Your task to perform on an android device: Open Chrome and go to settings Image 0: 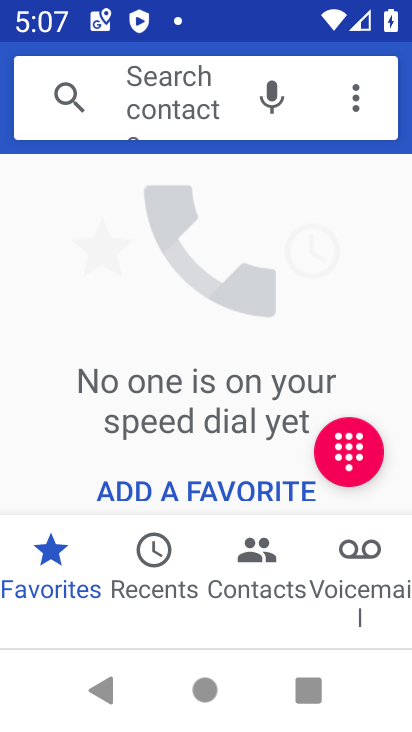
Step 0: press home button
Your task to perform on an android device: Open Chrome and go to settings Image 1: 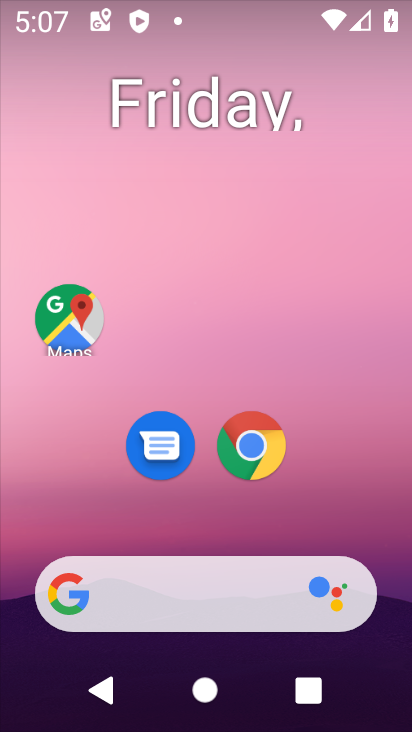
Step 1: click (255, 451)
Your task to perform on an android device: Open Chrome and go to settings Image 2: 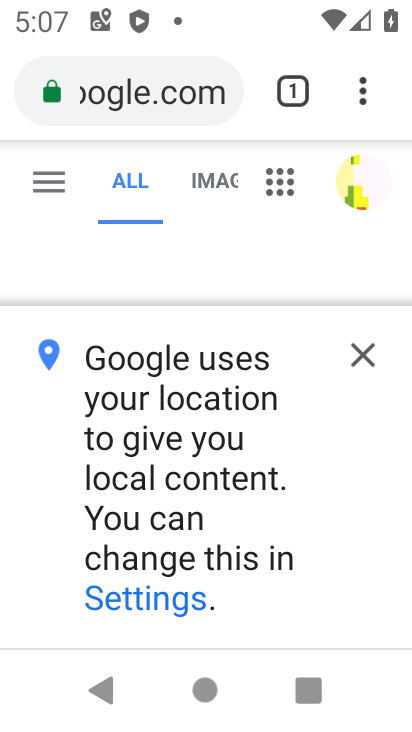
Step 2: click (378, 99)
Your task to perform on an android device: Open Chrome and go to settings Image 3: 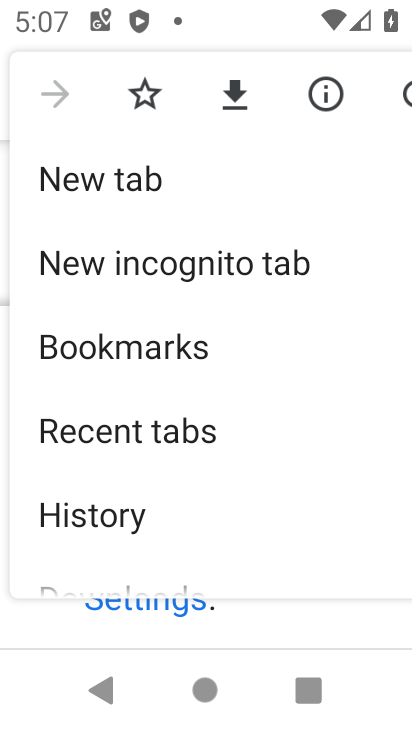
Step 3: drag from (258, 574) to (223, 374)
Your task to perform on an android device: Open Chrome and go to settings Image 4: 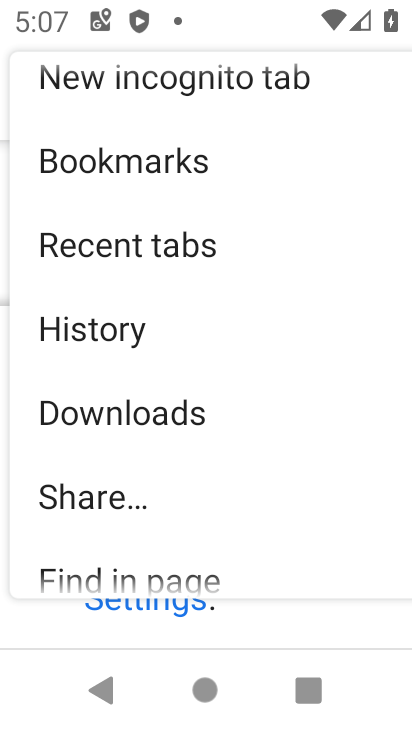
Step 4: drag from (220, 545) to (174, 315)
Your task to perform on an android device: Open Chrome and go to settings Image 5: 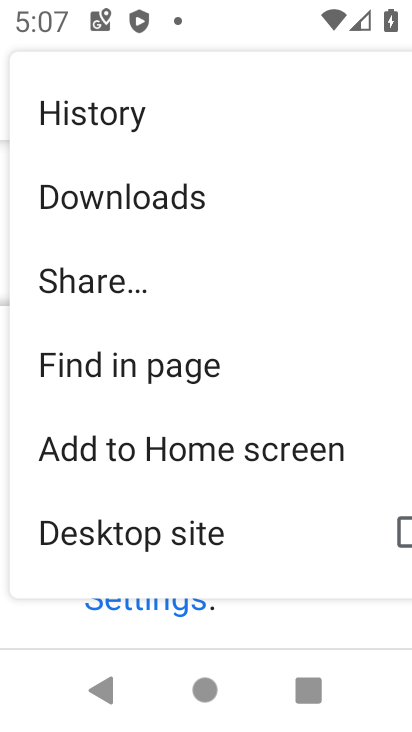
Step 5: drag from (227, 447) to (206, 255)
Your task to perform on an android device: Open Chrome and go to settings Image 6: 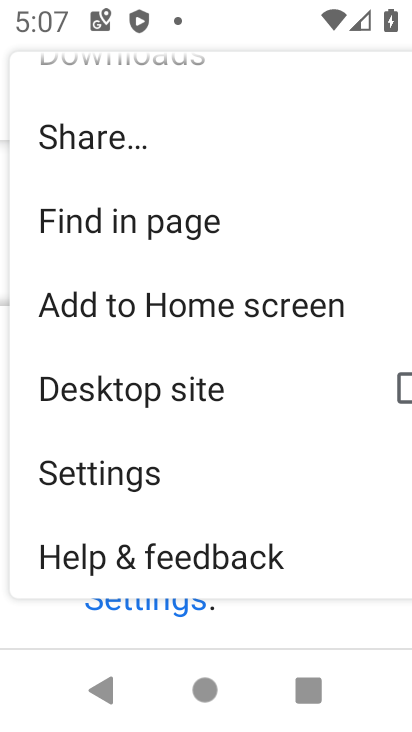
Step 6: click (218, 458)
Your task to perform on an android device: Open Chrome and go to settings Image 7: 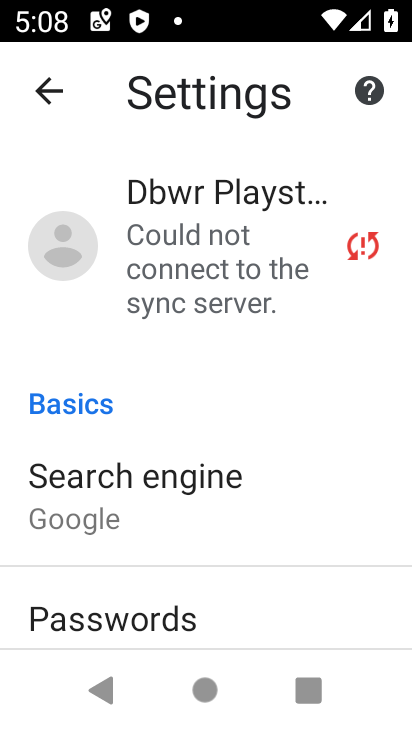
Step 7: task complete